Your task to perform on an android device: Clear all items from cart on target.com. Search for macbook air on target.com, select the first entry, and add it to the cart. Image 0: 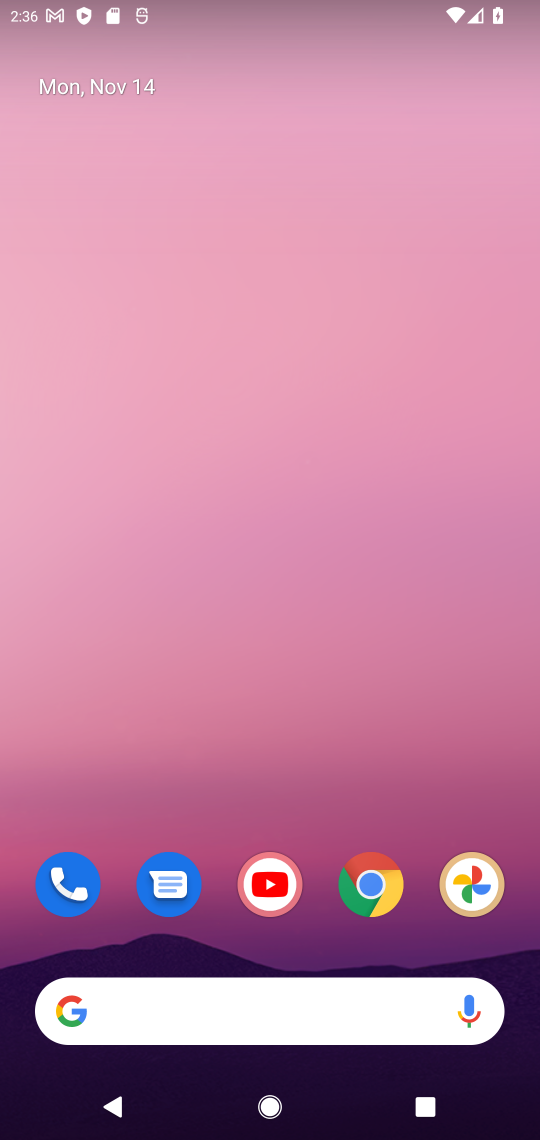
Step 0: click (376, 885)
Your task to perform on an android device: Clear all items from cart on target.com. Search for macbook air on target.com, select the first entry, and add it to the cart. Image 1: 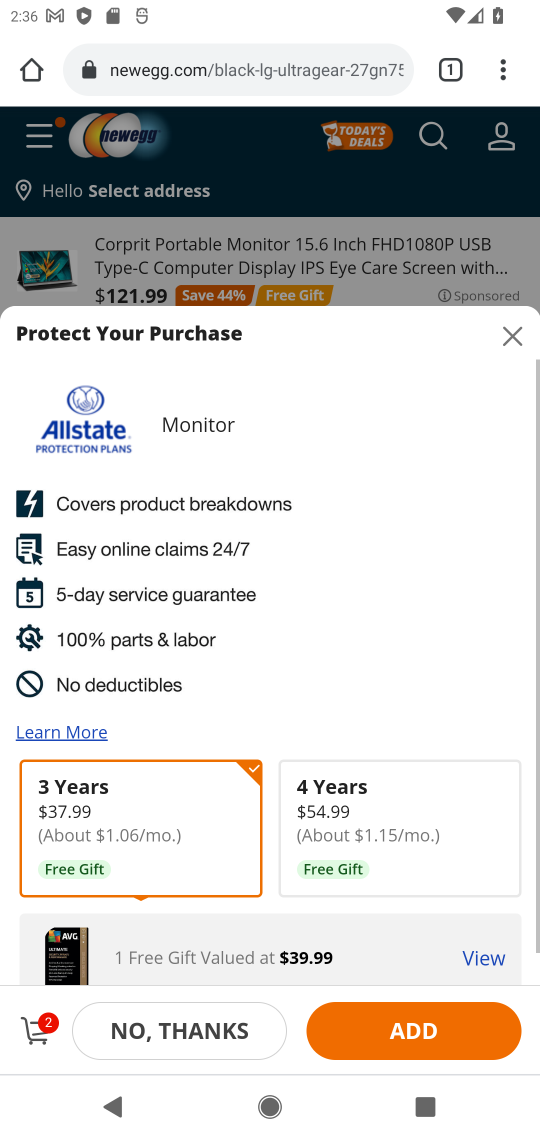
Step 1: click (305, 71)
Your task to perform on an android device: Clear all items from cart on target.com. Search for macbook air on target.com, select the first entry, and add it to the cart. Image 2: 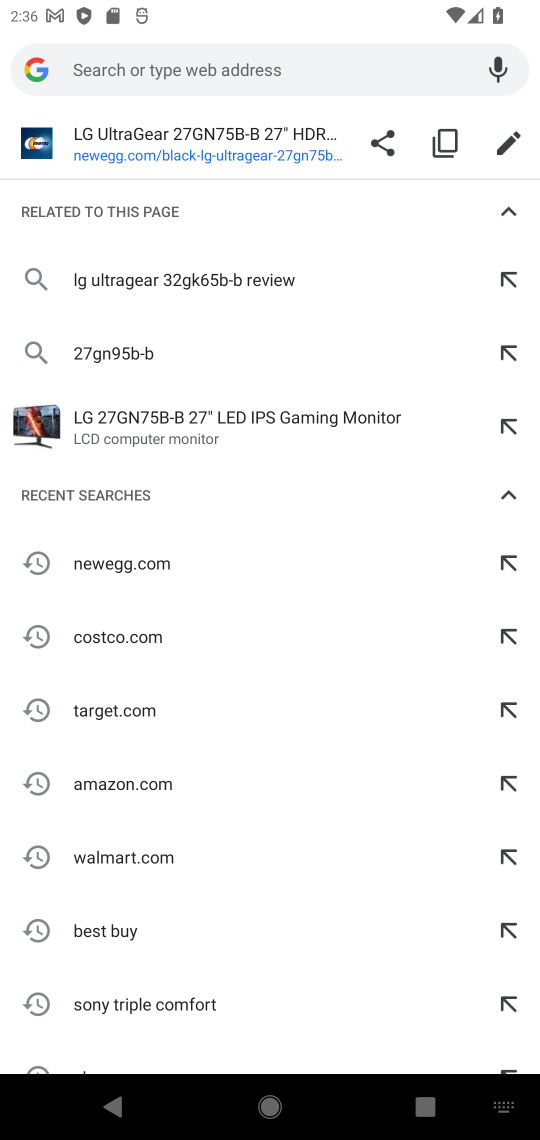
Step 2: click (133, 703)
Your task to perform on an android device: Clear all items from cart on target.com. Search for macbook air on target.com, select the first entry, and add it to the cart. Image 3: 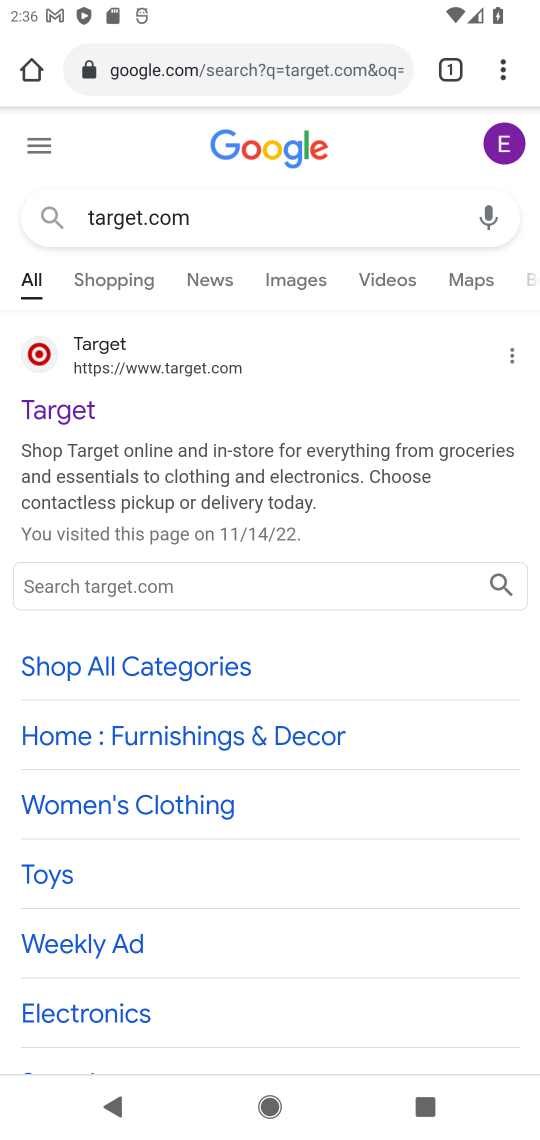
Step 3: click (139, 369)
Your task to perform on an android device: Clear all items from cart on target.com. Search for macbook air on target.com, select the first entry, and add it to the cart. Image 4: 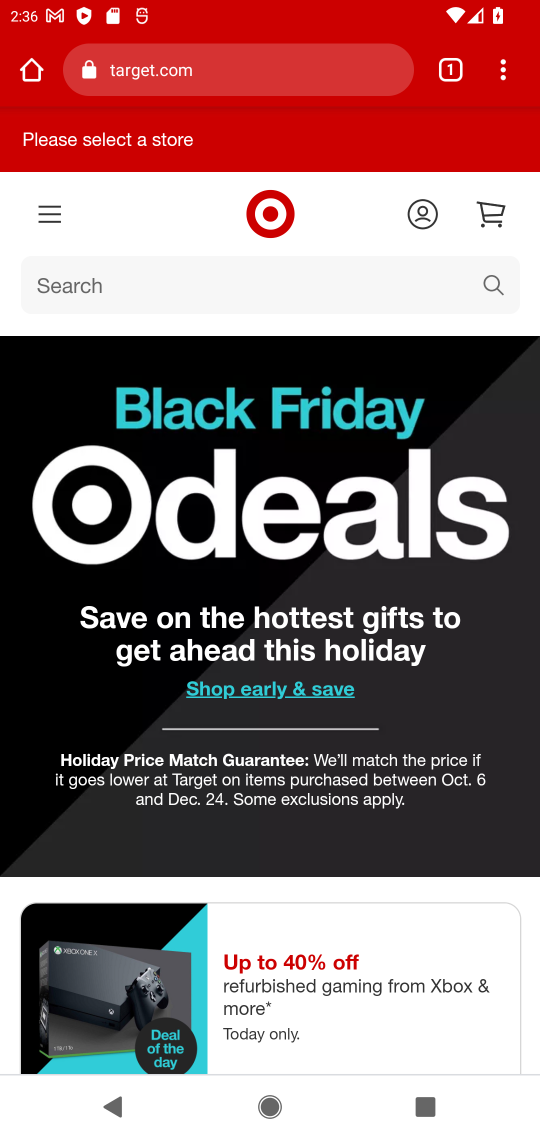
Step 4: click (501, 211)
Your task to perform on an android device: Clear all items from cart on target.com. Search for macbook air on target.com, select the first entry, and add it to the cart. Image 5: 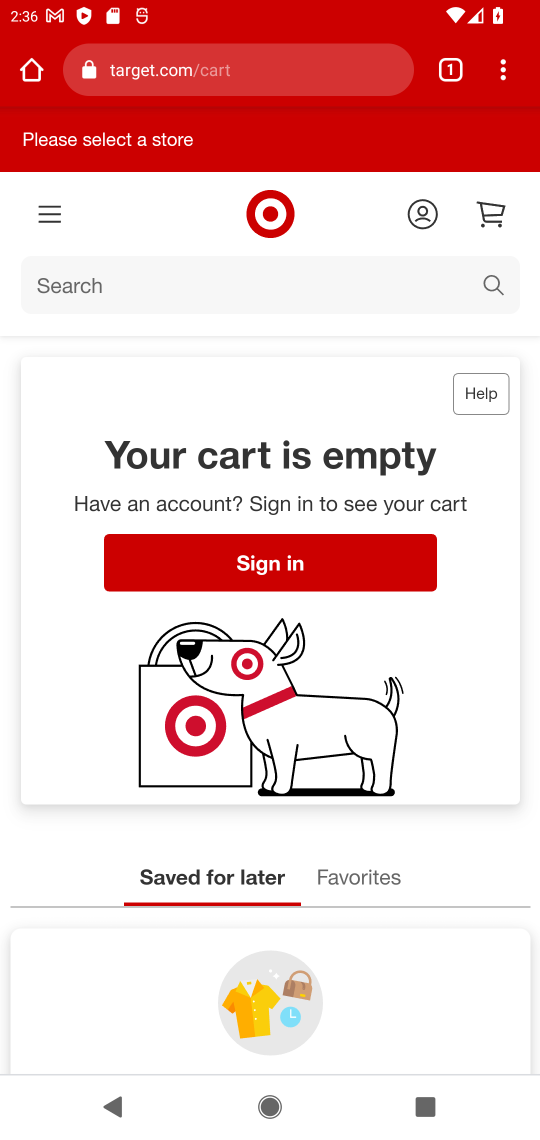
Step 5: drag from (24, 1086) to (17, 690)
Your task to perform on an android device: Clear all items from cart on target.com. Search for macbook air on target.com, select the first entry, and add it to the cart. Image 6: 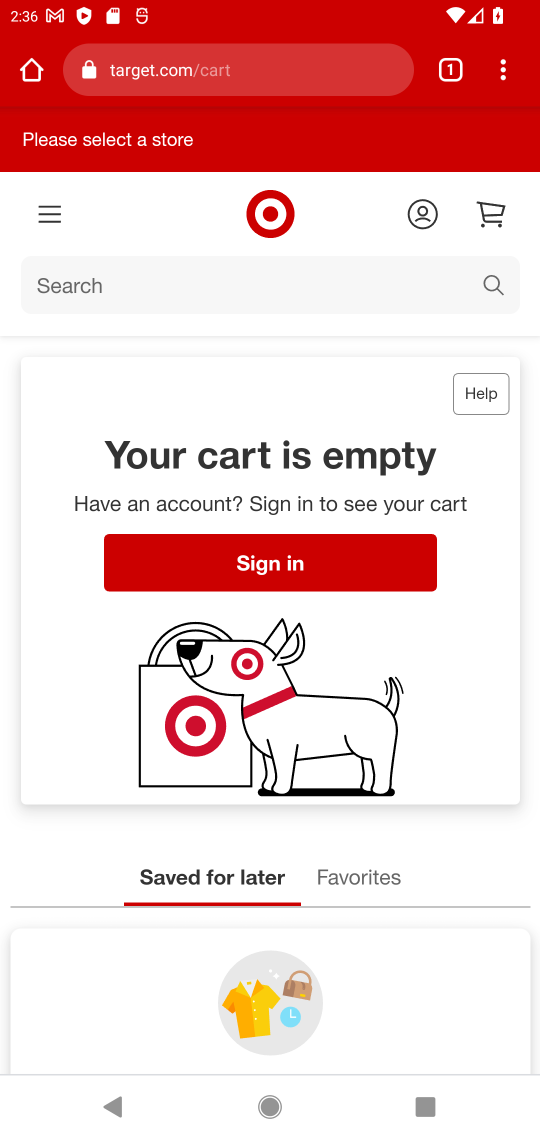
Step 6: click (483, 286)
Your task to perform on an android device: Clear all items from cart on target.com. Search for macbook air on target.com, select the first entry, and add it to the cart. Image 7: 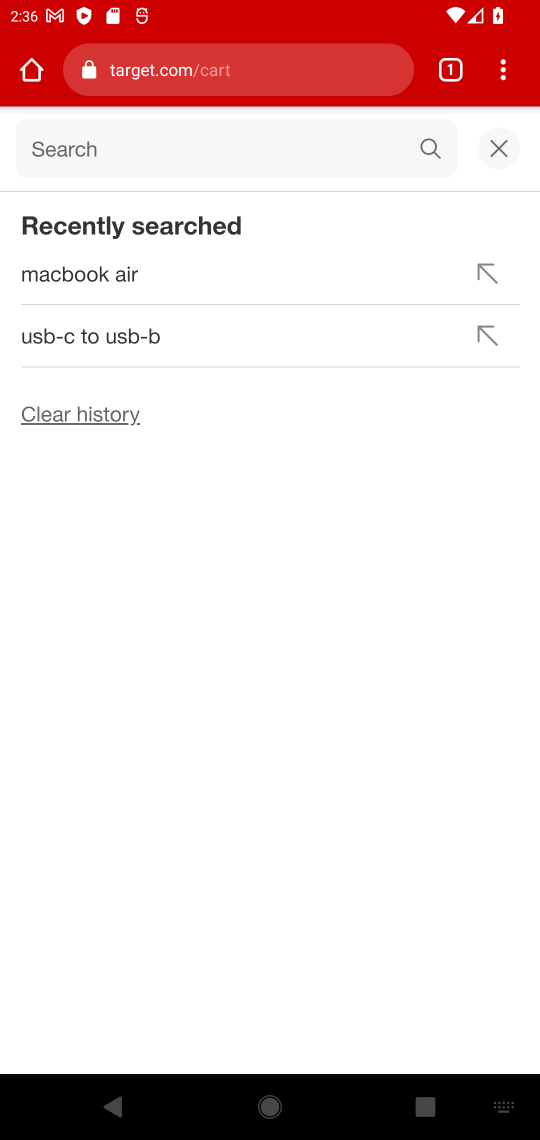
Step 7: type "macbook air"
Your task to perform on an android device: Clear all items from cart on target.com. Search for macbook air on target.com, select the first entry, and add it to the cart. Image 8: 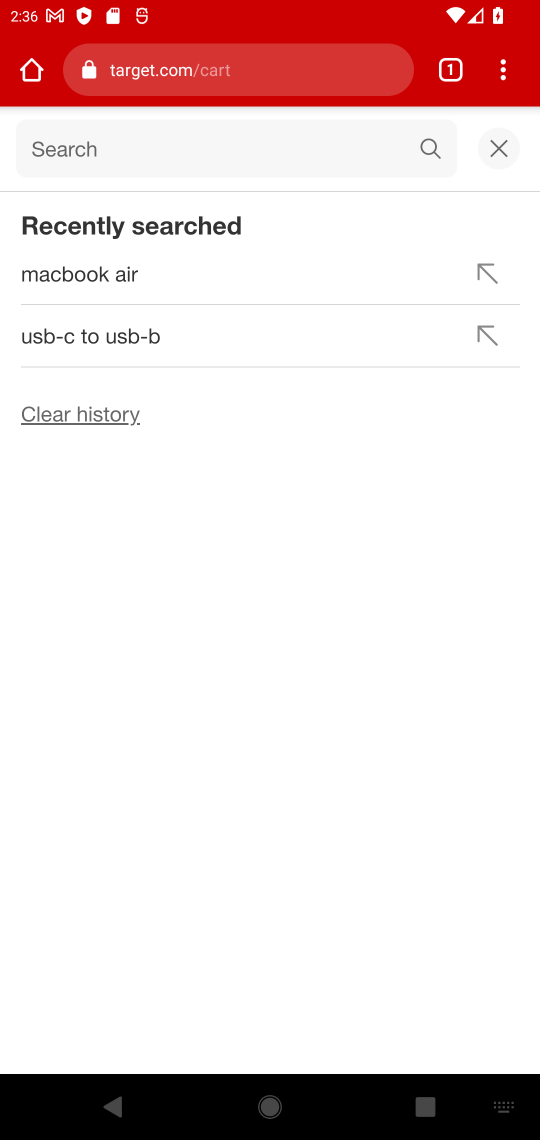
Step 8: press enter
Your task to perform on an android device: Clear all items from cart on target.com. Search for macbook air on target.com, select the first entry, and add it to the cart. Image 9: 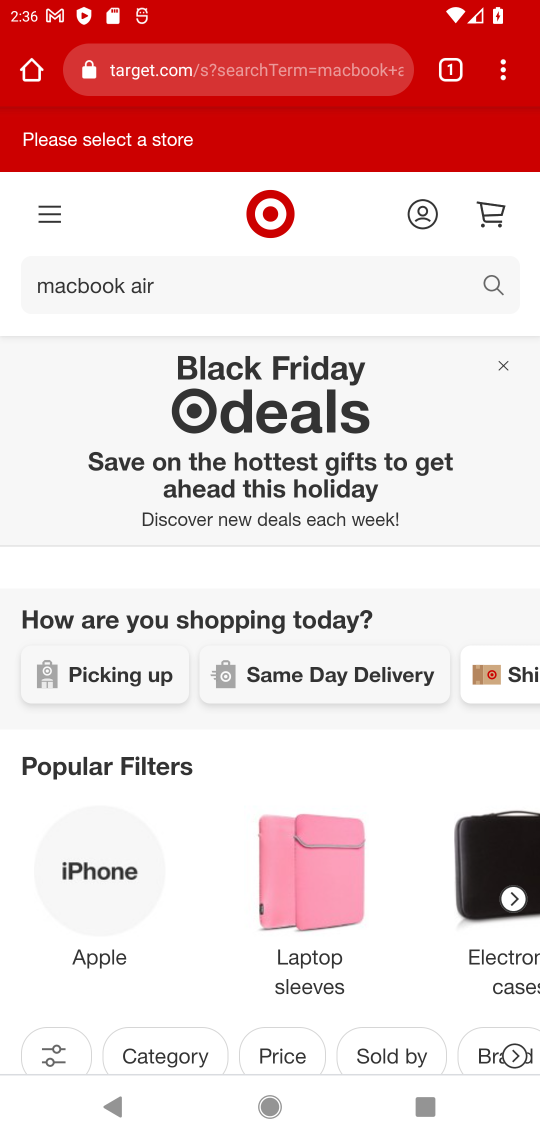
Step 9: task complete